Your task to perform on an android device: Play the last video I watched on Youtube Image 0: 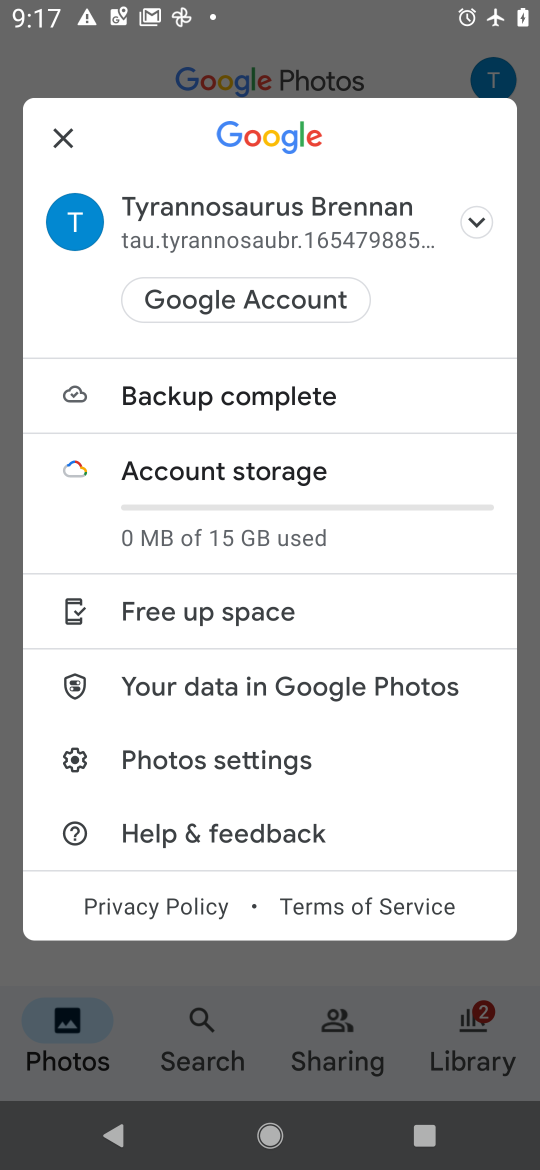
Step 0: press home button
Your task to perform on an android device: Play the last video I watched on Youtube Image 1: 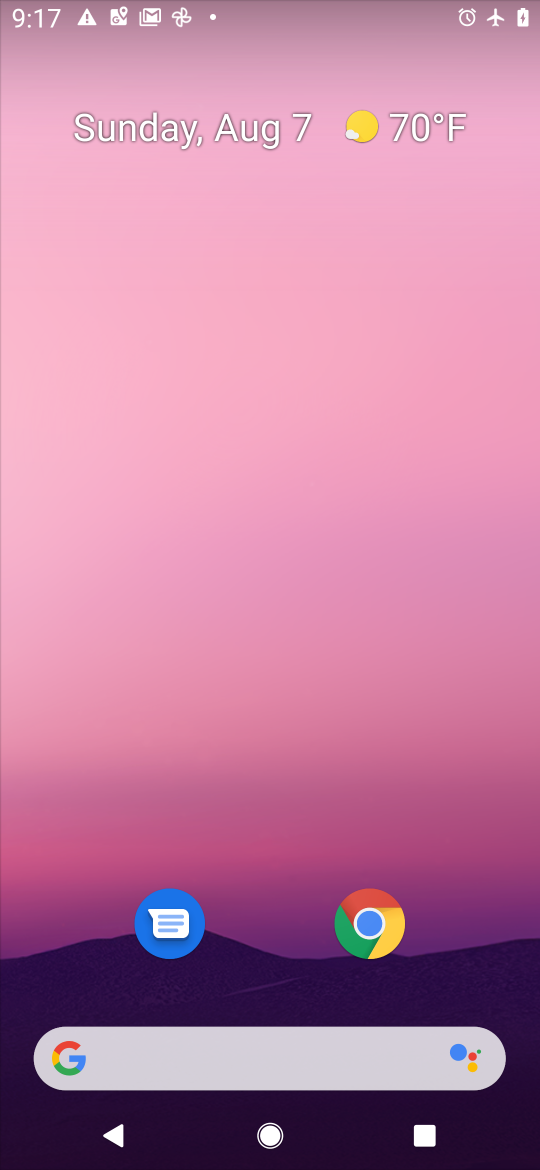
Step 1: drag from (472, 1002) to (284, 211)
Your task to perform on an android device: Play the last video I watched on Youtube Image 2: 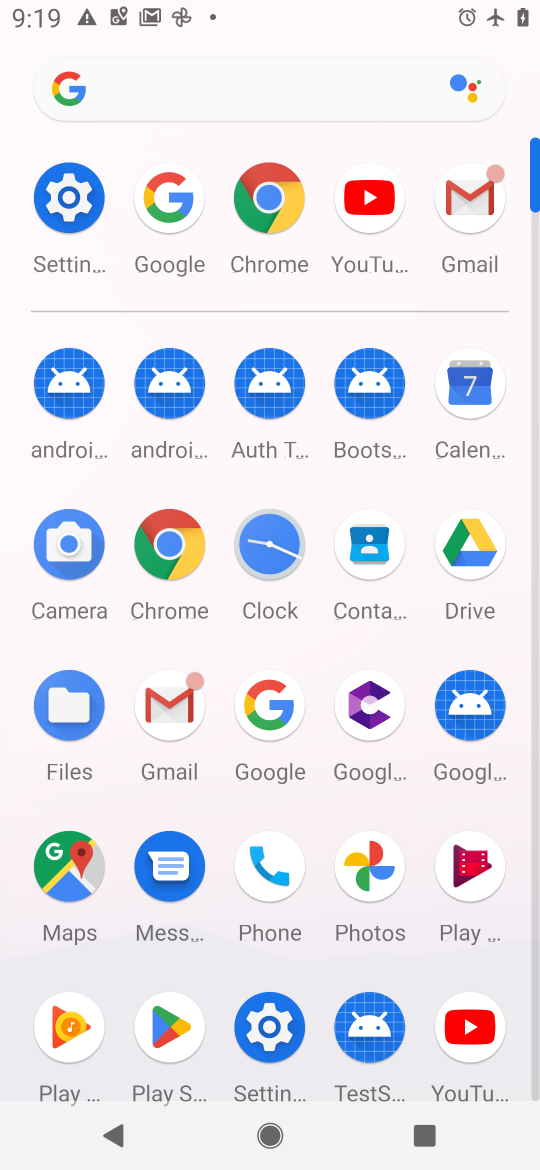
Step 2: click (470, 1038)
Your task to perform on an android device: Play the last video I watched on Youtube Image 3: 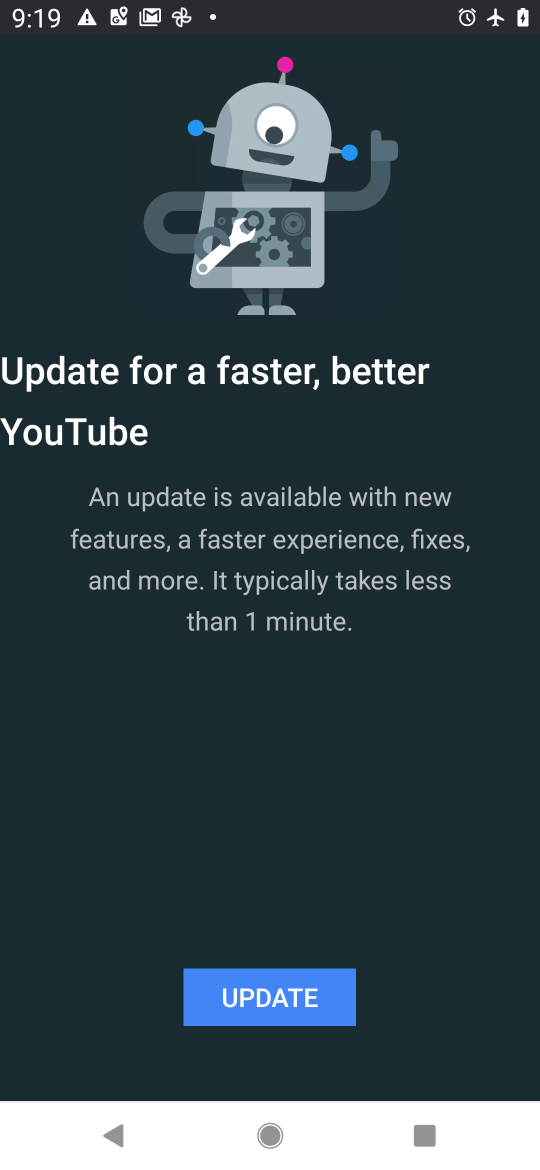
Step 3: task complete